Your task to perform on an android device: Go to Yahoo.com Image 0: 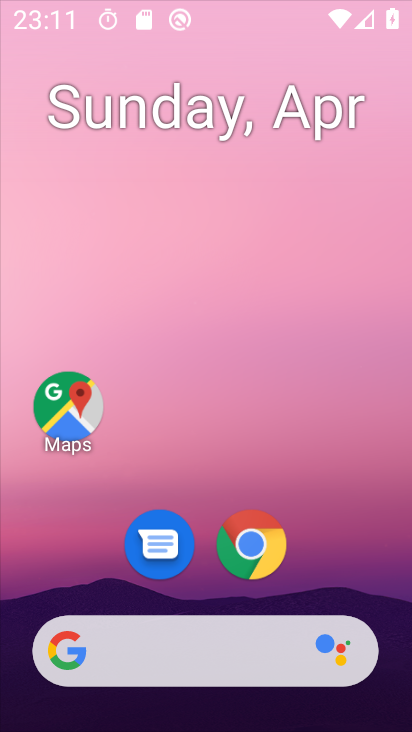
Step 0: drag from (302, 504) to (294, 254)
Your task to perform on an android device: Go to Yahoo.com Image 1: 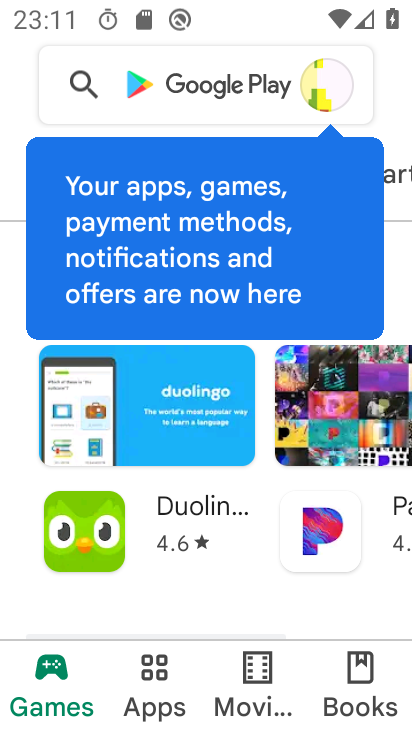
Step 1: press home button
Your task to perform on an android device: Go to Yahoo.com Image 2: 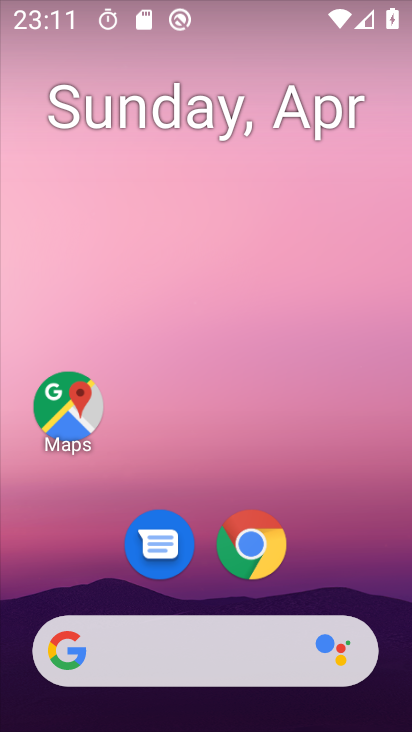
Step 2: drag from (321, 556) to (328, 256)
Your task to perform on an android device: Go to Yahoo.com Image 3: 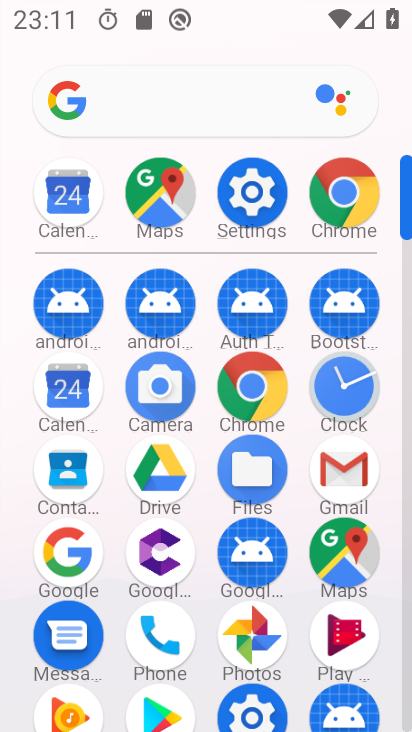
Step 3: click (257, 386)
Your task to perform on an android device: Go to Yahoo.com Image 4: 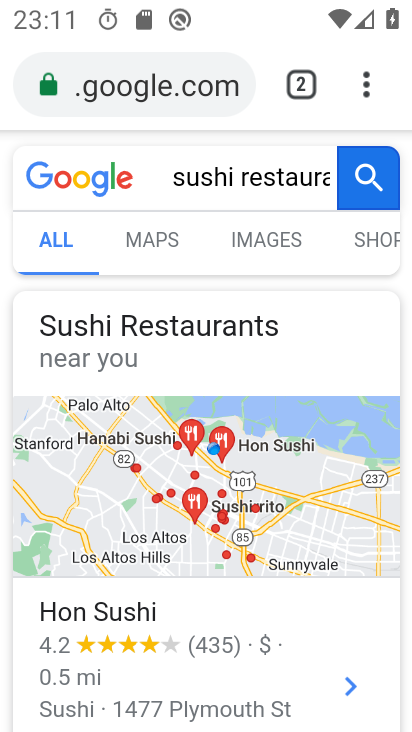
Step 4: click (357, 81)
Your task to perform on an android device: Go to Yahoo.com Image 5: 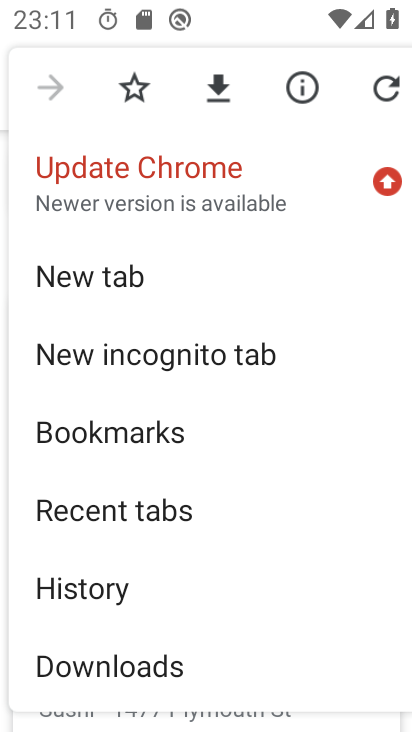
Step 5: click (149, 284)
Your task to perform on an android device: Go to Yahoo.com Image 6: 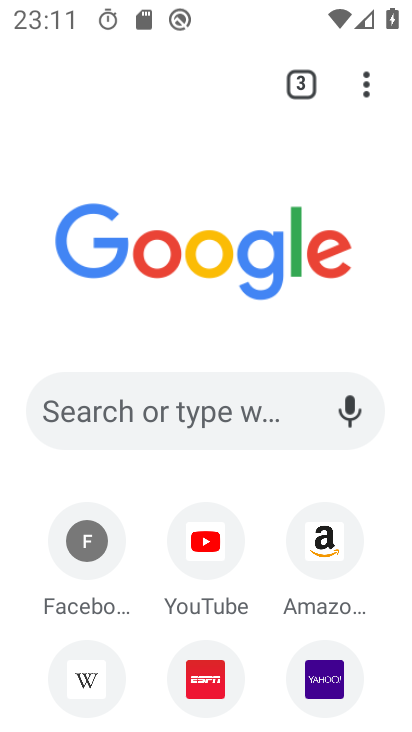
Step 6: click (314, 671)
Your task to perform on an android device: Go to Yahoo.com Image 7: 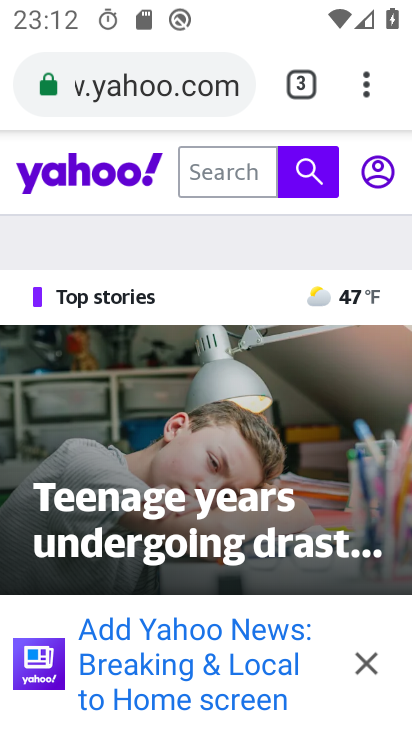
Step 7: task complete